Your task to perform on an android device: check battery use Image 0: 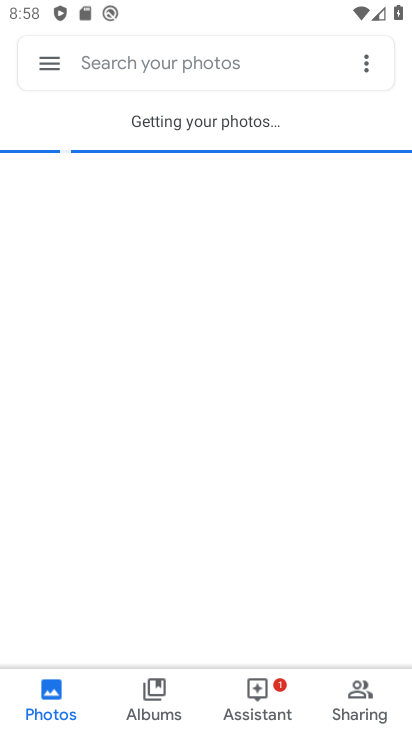
Step 0: press home button
Your task to perform on an android device: check battery use Image 1: 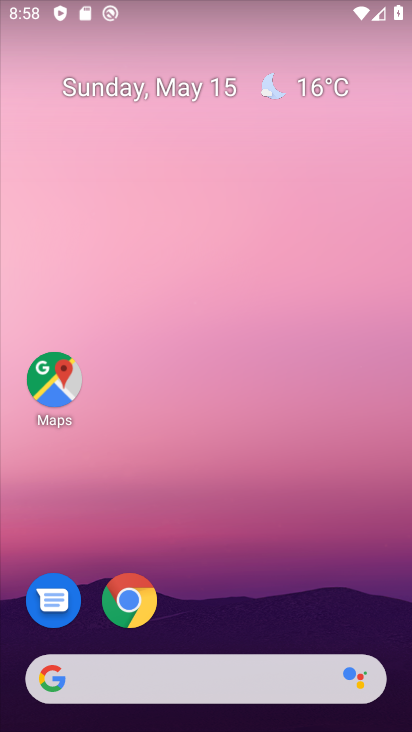
Step 1: drag from (211, 544) to (224, 161)
Your task to perform on an android device: check battery use Image 2: 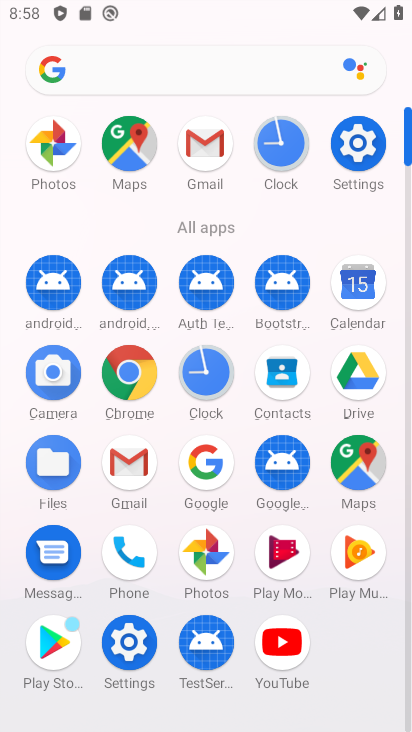
Step 2: click (351, 156)
Your task to perform on an android device: check battery use Image 3: 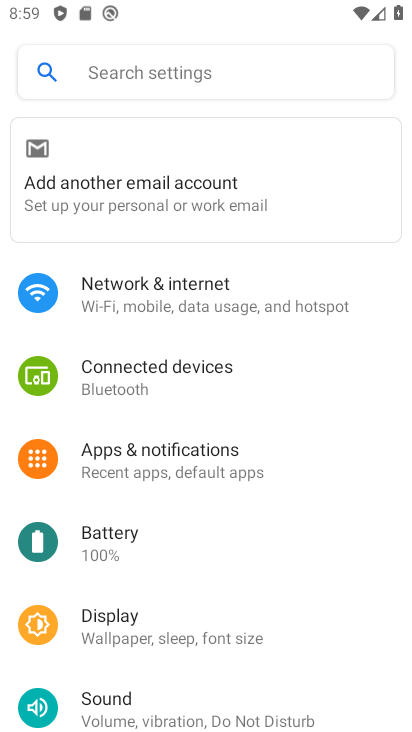
Step 3: click (149, 549)
Your task to perform on an android device: check battery use Image 4: 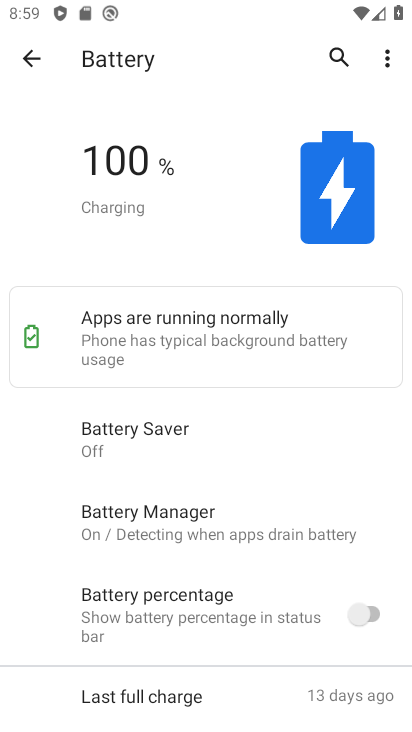
Step 4: task complete